Your task to perform on an android device: refresh tabs in the chrome app Image 0: 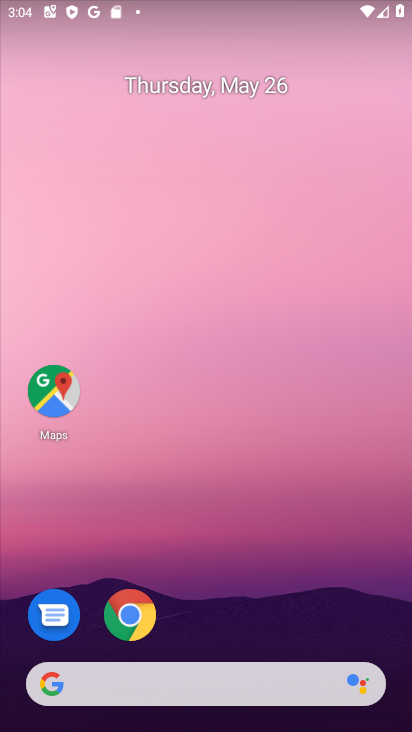
Step 0: click (133, 618)
Your task to perform on an android device: refresh tabs in the chrome app Image 1: 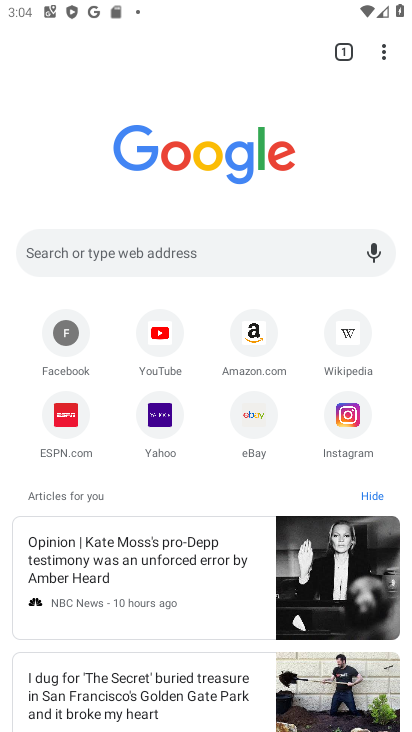
Step 1: click (387, 46)
Your task to perform on an android device: refresh tabs in the chrome app Image 2: 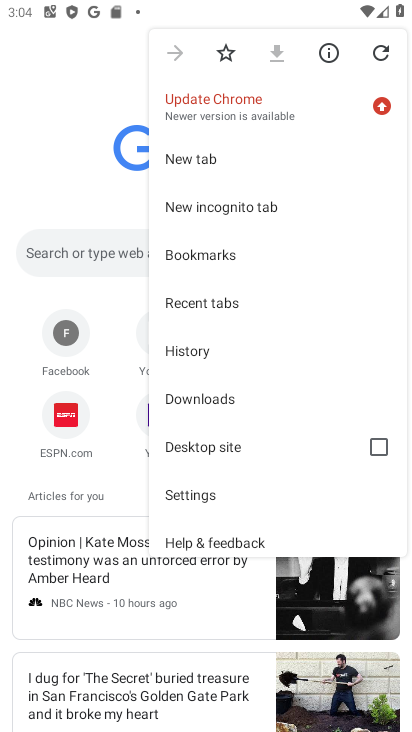
Step 2: click (382, 57)
Your task to perform on an android device: refresh tabs in the chrome app Image 3: 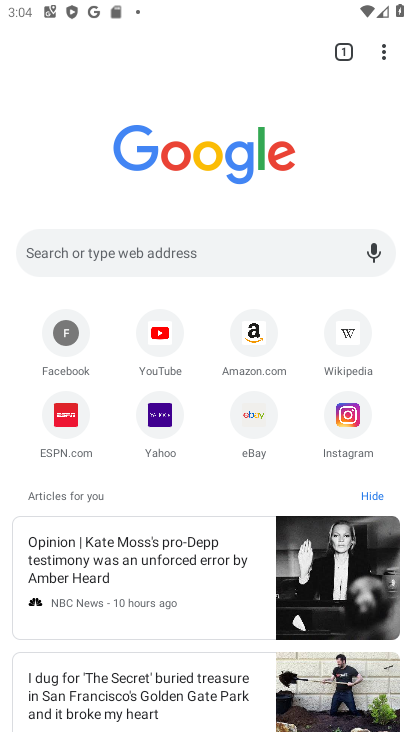
Step 3: task complete